Your task to perform on an android device: delete the emails in spam in the gmail app Image 0: 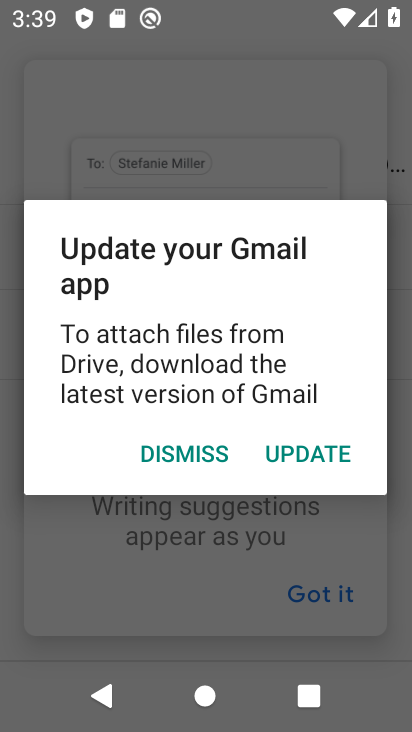
Step 0: press home button
Your task to perform on an android device: delete the emails in spam in the gmail app Image 1: 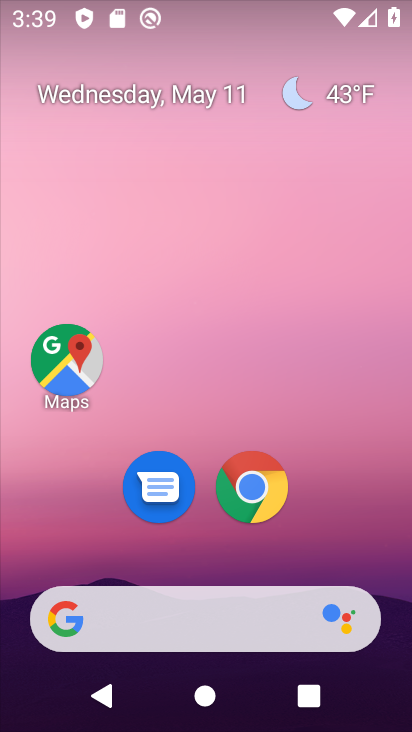
Step 1: drag from (309, 517) to (348, 125)
Your task to perform on an android device: delete the emails in spam in the gmail app Image 2: 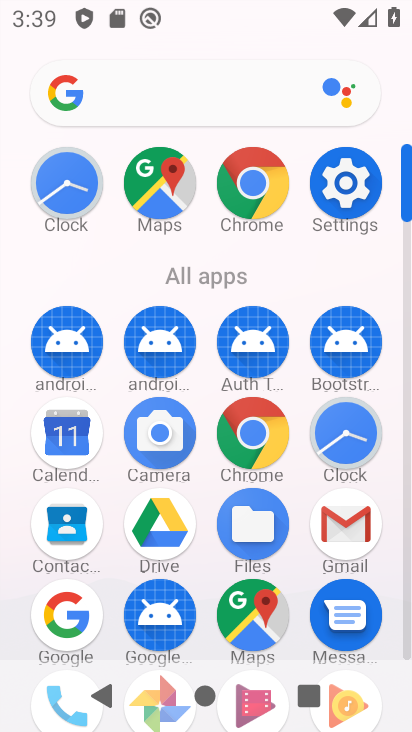
Step 2: click (353, 531)
Your task to perform on an android device: delete the emails in spam in the gmail app Image 3: 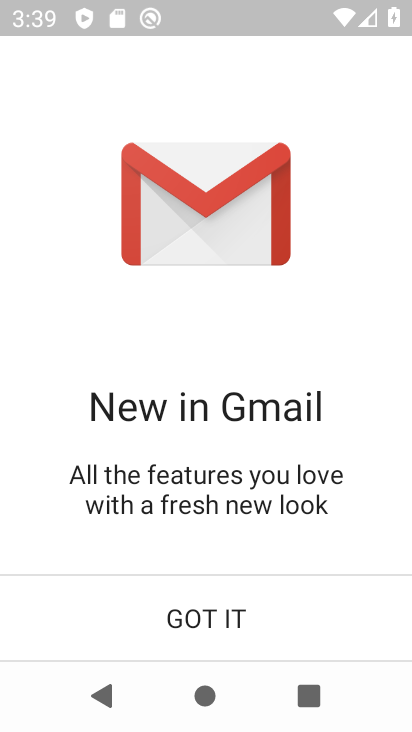
Step 3: click (207, 622)
Your task to perform on an android device: delete the emails in spam in the gmail app Image 4: 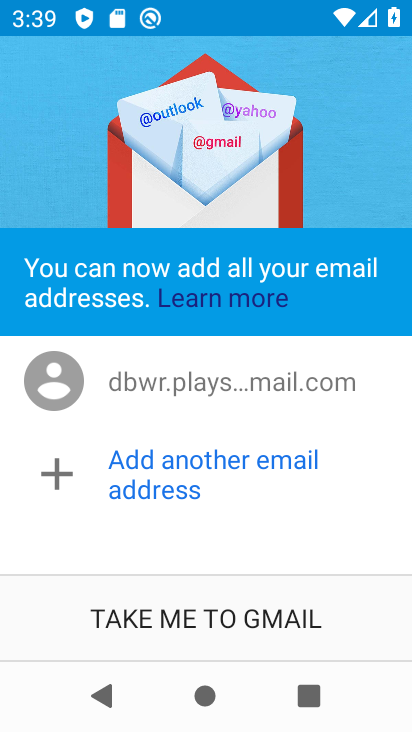
Step 4: click (216, 614)
Your task to perform on an android device: delete the emails in spam in the gmail app Image 5: 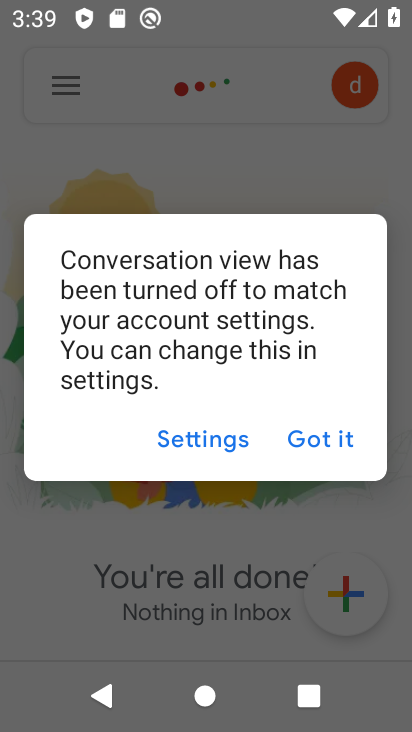
Step 5: click (307, 423)
Your task to perform on an android device: delete the emails in spam in the gmail app Image 6: 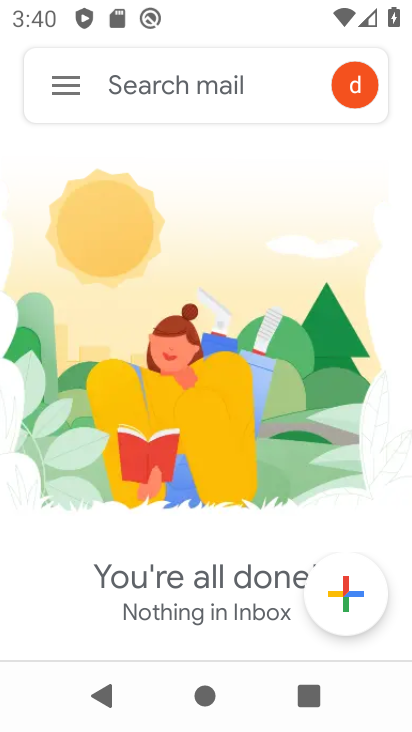
Step 6: click (64, 89)
Your task to perform on an android device: delete the emails in spam in the gmail app Image 7: 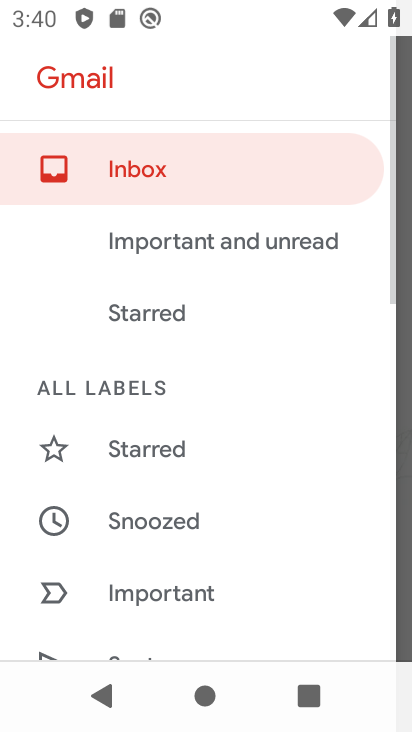
Step 7: drag from (162, 576) to (236, 243)
Your task to perform on an android device: delete the emails in spam in the gmail app Image 8: 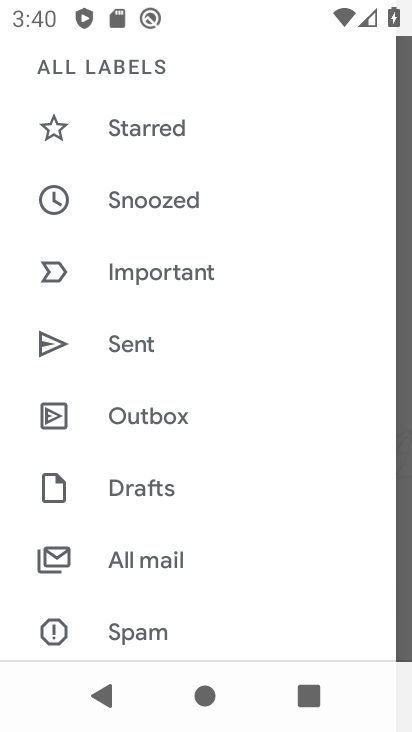
Step 8: click (134, 629)
Your task to perform on an android device: delete the emails in spam in the gmail app Image 9: 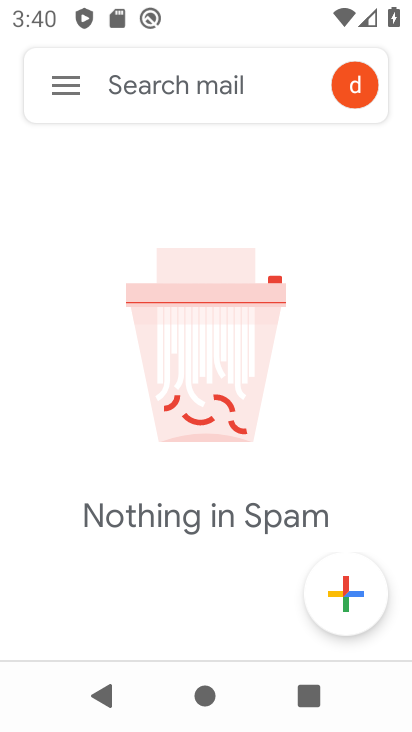
Step 9: task complete